Your task to perform on an android device: turn notification dots off Image 0: 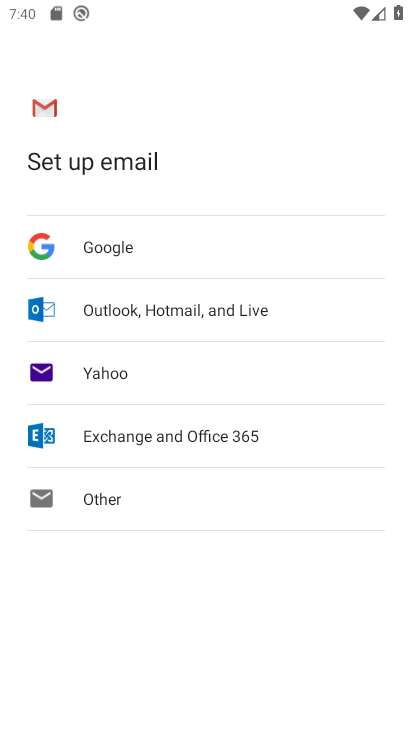
Step 0: press home button
Your task to perform on an android device: turn notification dots off Image 1: 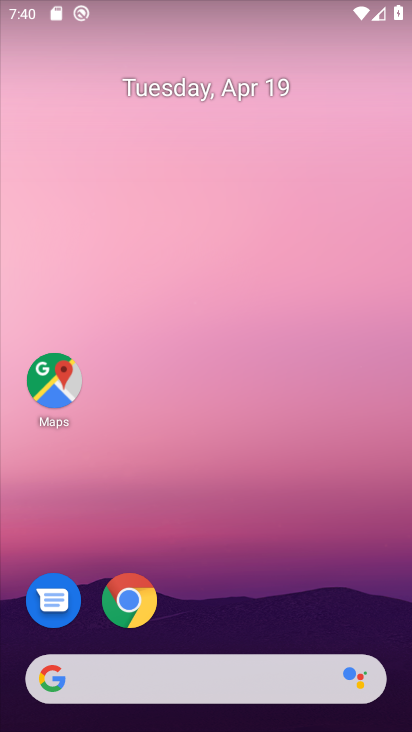
Step 1: drag from (307, 582) to (300, 153)
Your task to perform on an android device: turn notification dots off Image 2: 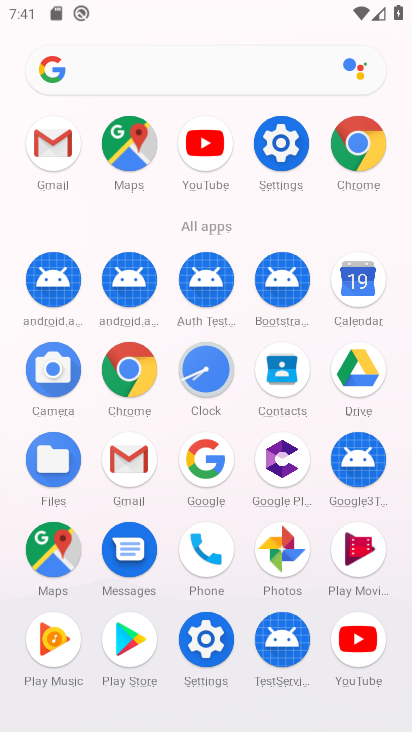
Step 2: click (286, 149)
Your task to perform on an android device: turn notification dots off Image 3: 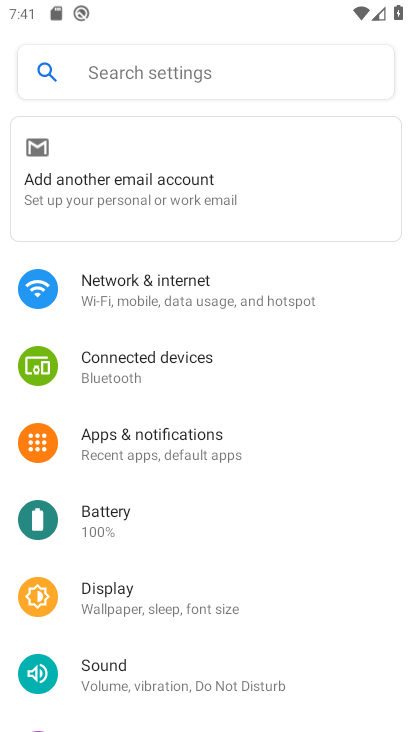
Step 3: drag from (348, 617) to (366, 418)
Your task to perform on an android device: turn notification dots off Image 4: 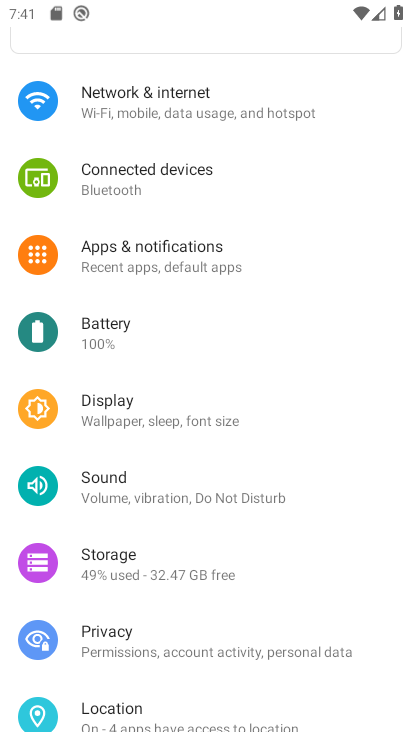
Step 4: drag from (365, 603) to (373, 389)
Your task to perform on an android device: turn notification dots off Image 5: 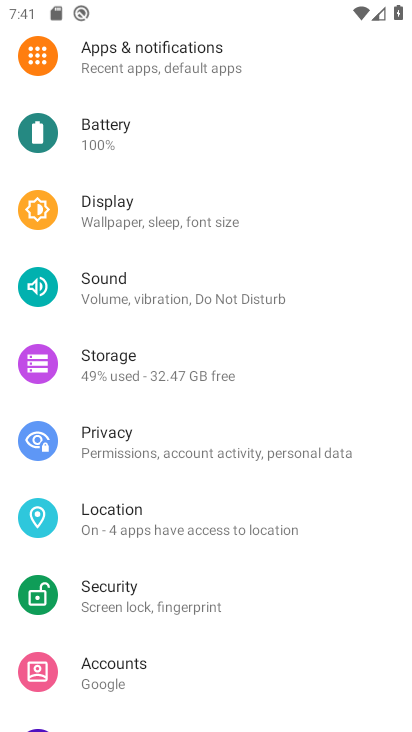
Step 5: drag from (368, 652) to (380, 389)
Your task to perform on an android device: turn notification dots off Image 6: 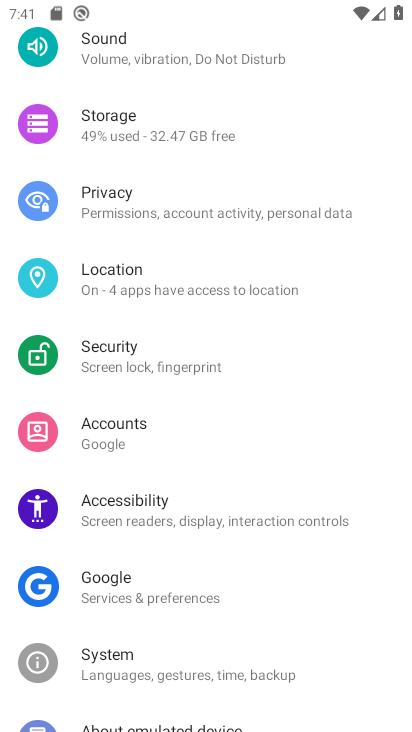
Step 6: drag from (349, 640) to (365, 323)
Your task to perform on an android device: turn notification dots off Image 7: 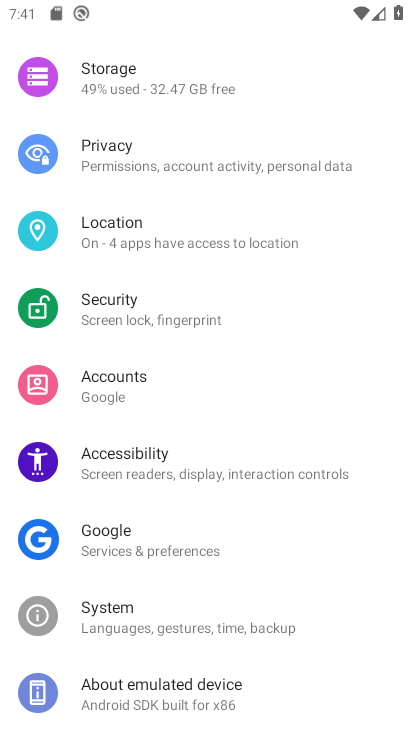
Step 7: drag from (373, 294) to (368, 505)
Your task to perform on an android device: turn notification dots off Image 8: 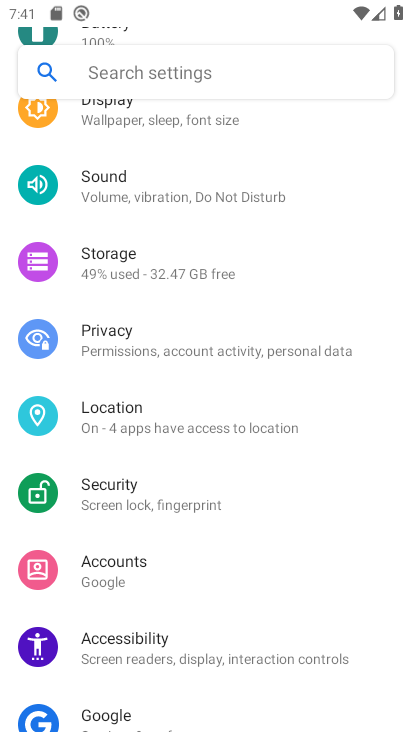
Step 8: drag from (368, 300) to (362, 509)
Your task to perform on an android device: turn notification dots off Image 9: 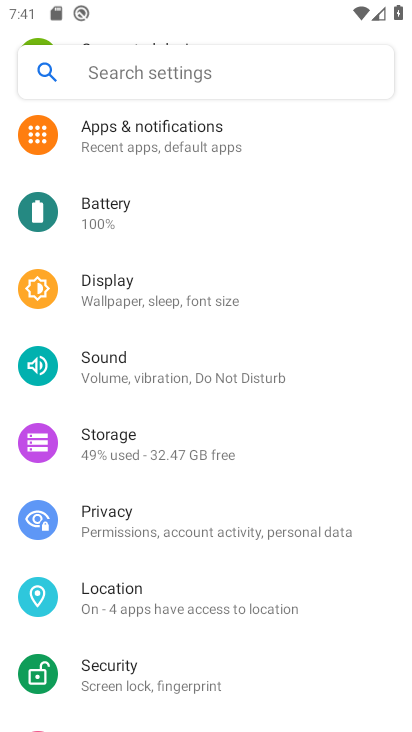
Step 9: drag from (362, 242) to (356, 460)
Your task to perform on an android device: turn notification dots off Image 10: 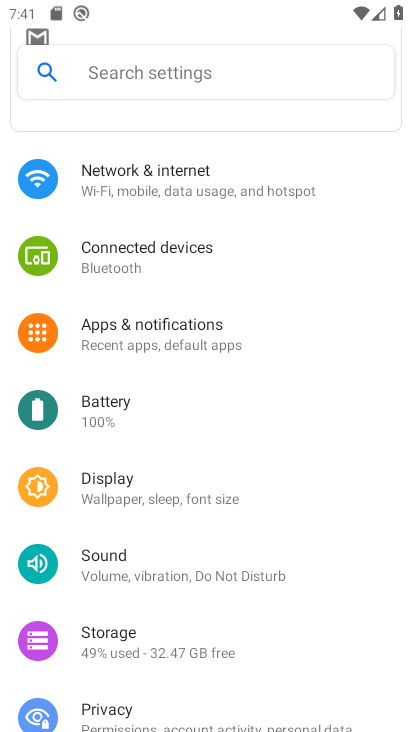
Step 10: click (169, 338)
Your task to perform on an android device: turn notification dots off Image 11: 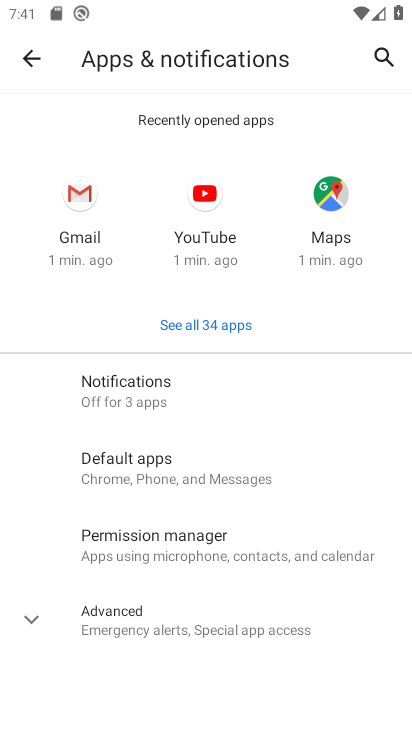
Step 11: click (148, 396)
Your task to perform on an android device: turn notification dots off Image 12: 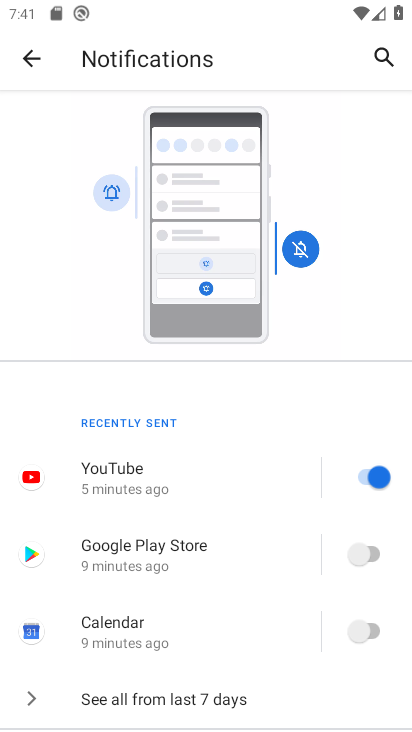
Step 12: drag from (240, 583) to (261, 285)
Your task to perform on an android device: turn notification dots off Image 13: 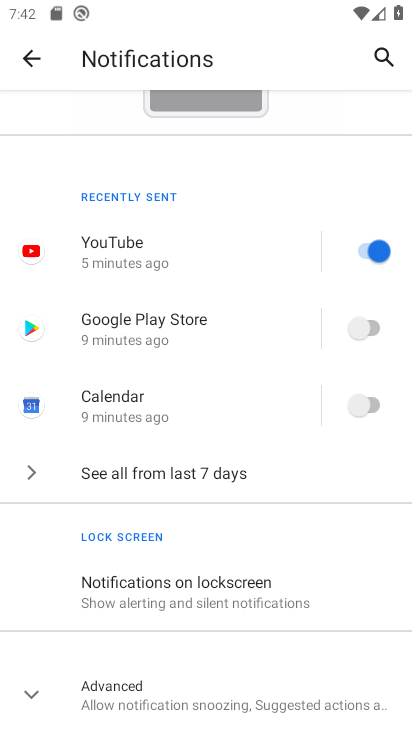
Step 13: drag from (289, 613) to (292, 394)
Your task to perform on an android device: turn notification dots off Image 14: 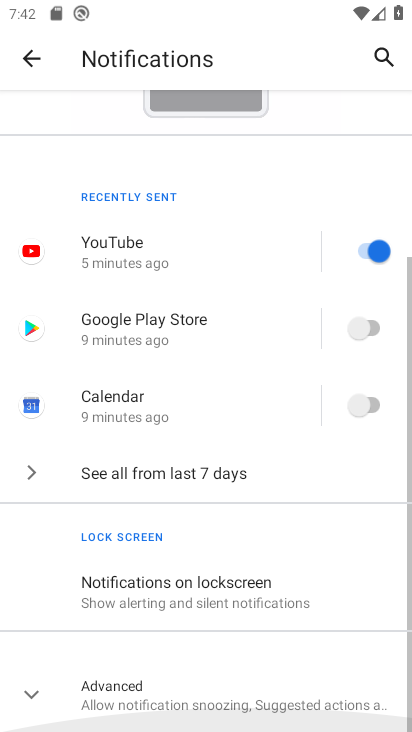
Step 14: click (250, 679)
Your task to perform on an android device: turn notification dots off Image 15: 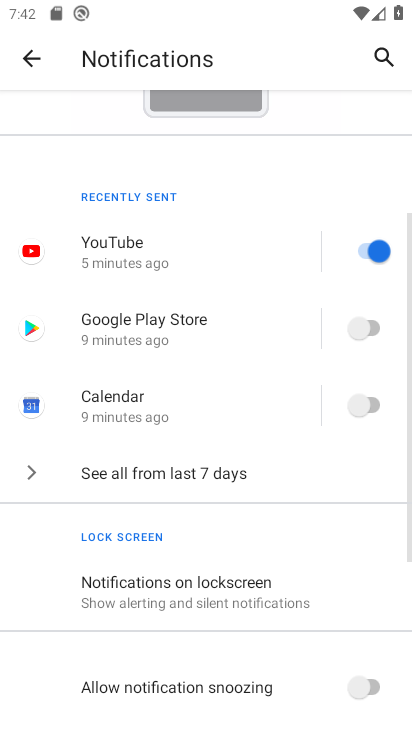
Step 15: drag from (297, 633) to (317, 342)
Your task to perform on an android device: turn notification dots off Image 16: 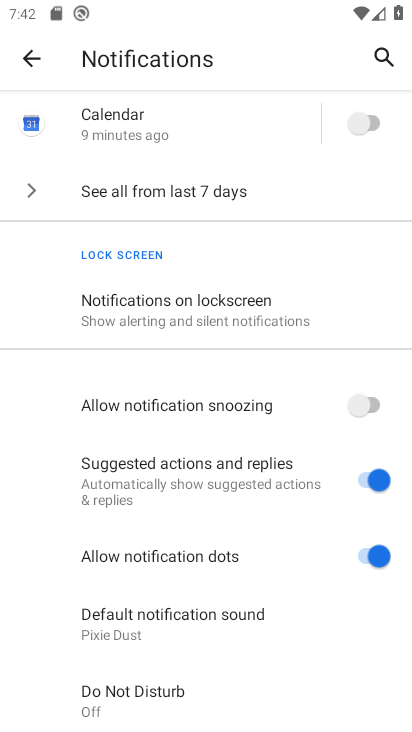
Step 16: click (369, 564)
Your task to perform on an android device: turn notification dots off Image 17: 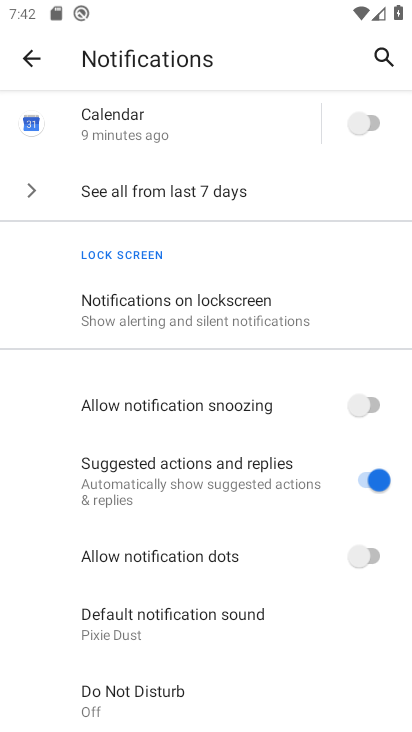
Step 17: task complete